Your task to perform on an android device: turn on wifi Image 0: 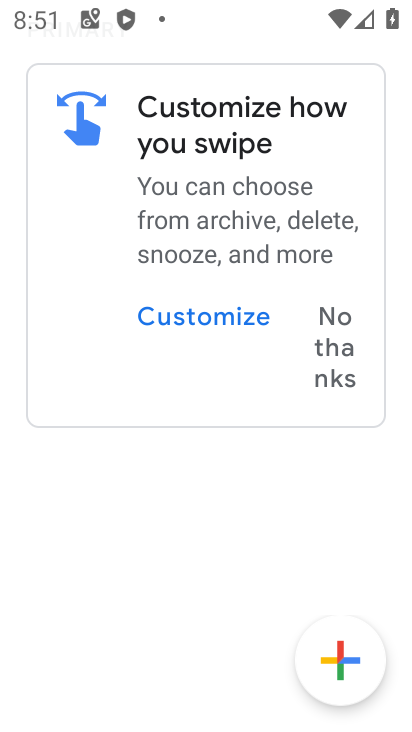
Step 0: press home button
Your task to perform on an android device: turn on wifi Image 1: 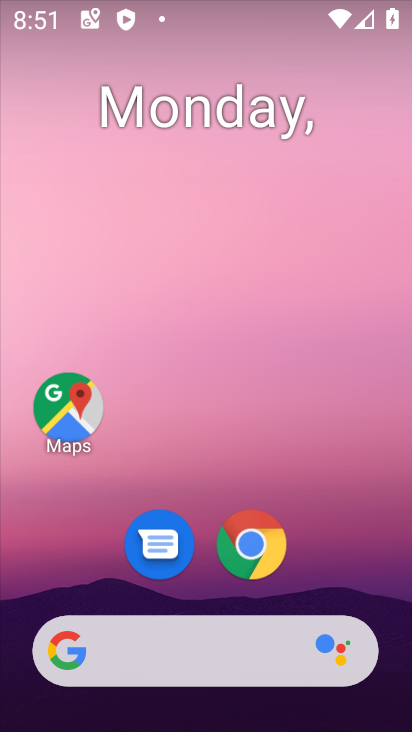
Step 1: drag from (251, 470) to (205, 12)
Your task to perform on an android device: turn on wifi Image 2: 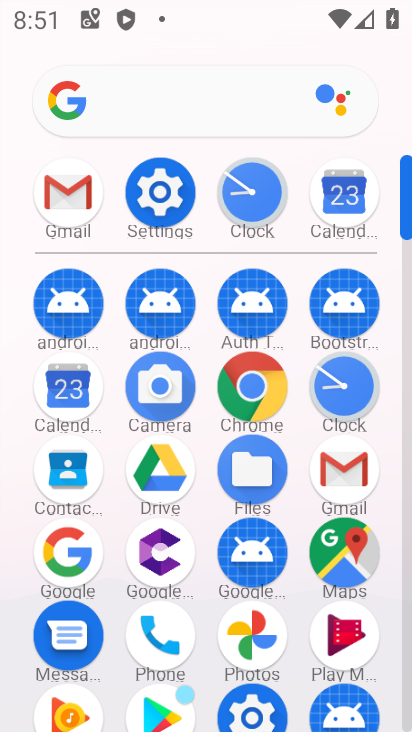
Step 2: click (160, 191)
Your task to perform on an android device: turn on wifi Image 3: 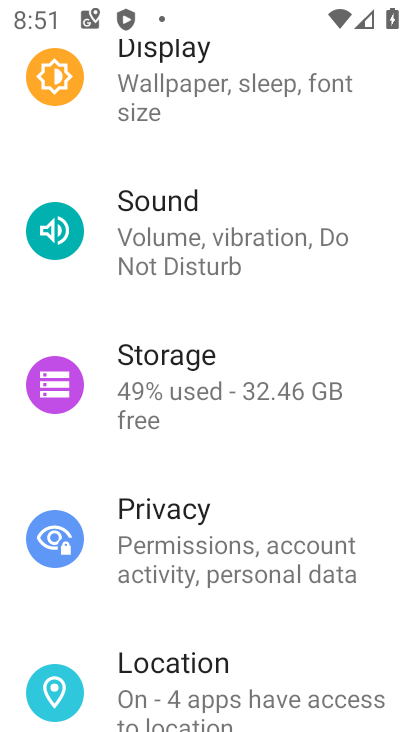
Step 3: drag from (202, 140) to (245, 729)
Your task to perform on an android device: turn on wifi Image 4: 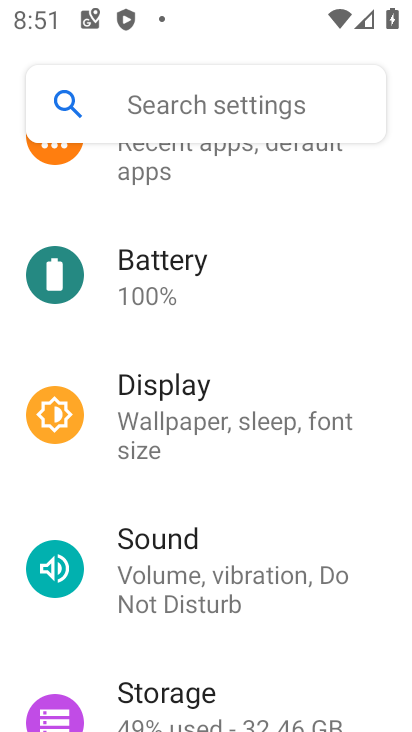
Step 4: drag from (247, 351) to (234, 715)
Your task to perform on an android device: turn on wifi Image 5: 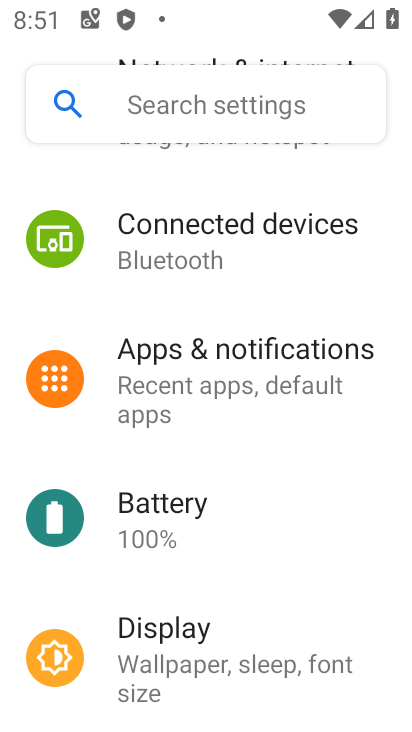
Step 5: drag from (211, 295) to (263, 697)
Your task to perform on an android device: turn on wifi Image 6: 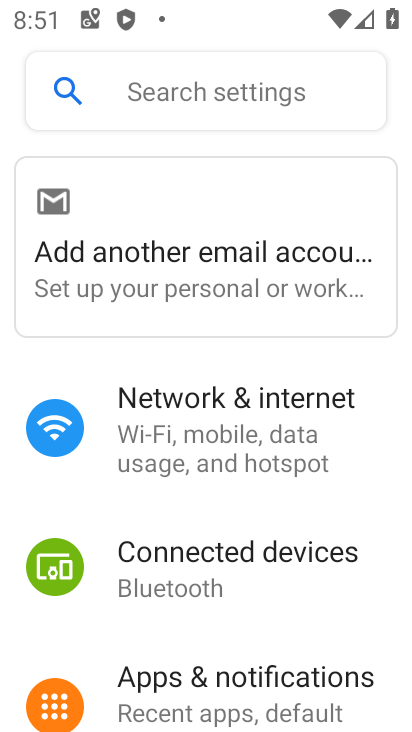
Step 6: click (221, 409)
Your task to perform on an android device: turn on wifi Image 7: 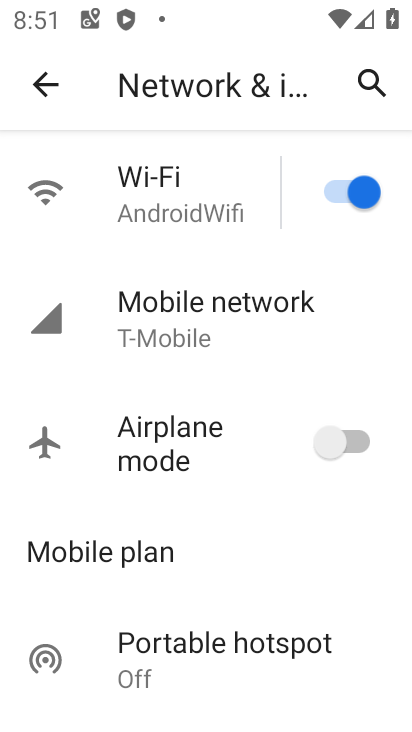
Step 7: task complete